Your task to perform on an android device: Is it going to rain tomorrow? Image 0: 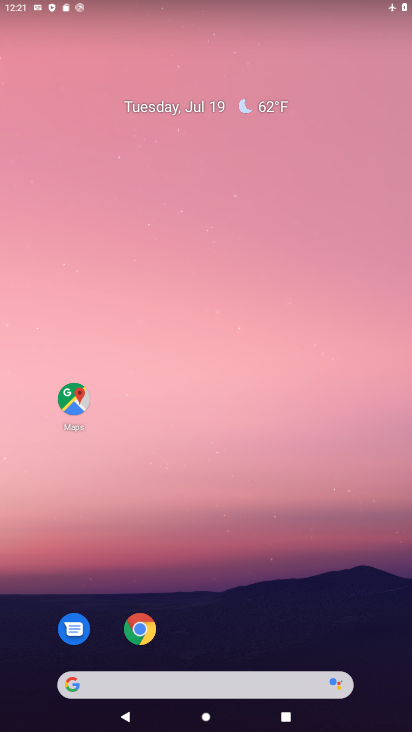
Step 0: drag from (210, 651) to (181, 51)
Your task to perform on an android device: Is it going to rain tomorrow? Image 1: 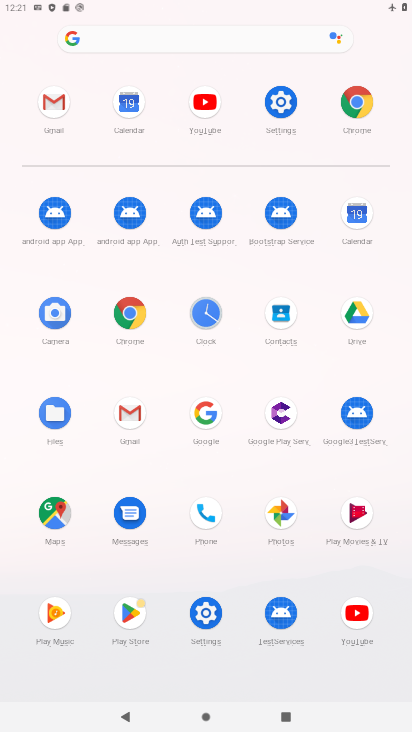
Step 1: click (190, 404)
Your task to perform on an android device: Is it going to rain tomorrow? Image 2: 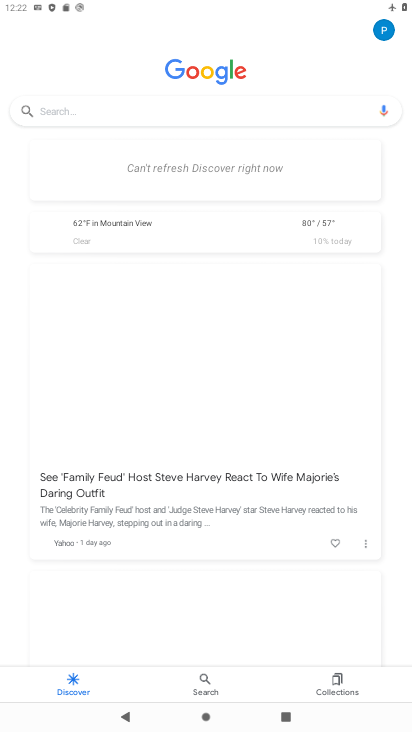
Step 2: click (136, 119)
Your task to perform on an android device: Is it going to rain tomorrow? Image 3: 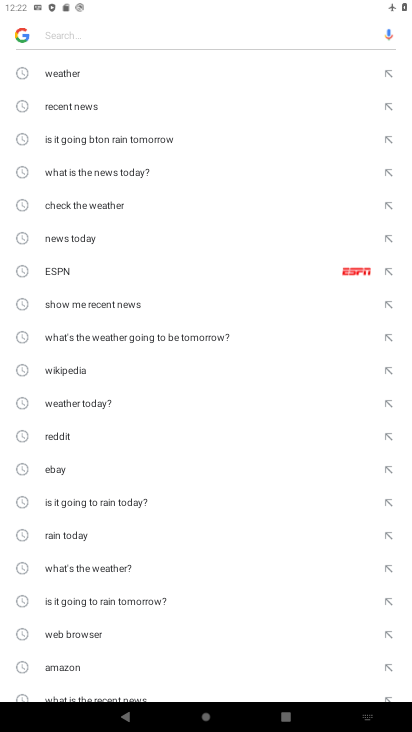
Step 3: click (69, 74)
Your task to perform on an android device: Is it going to rain tomorrow? Image 4: 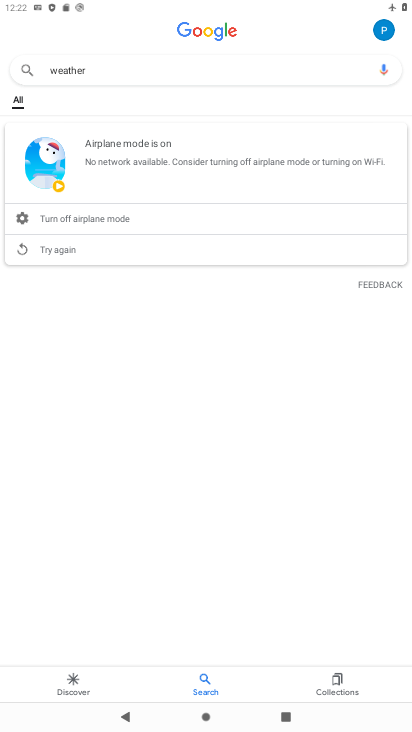
Step 4: task complete